Your task to perform on an android device: manage bookmarks in the chrome app Image 0: 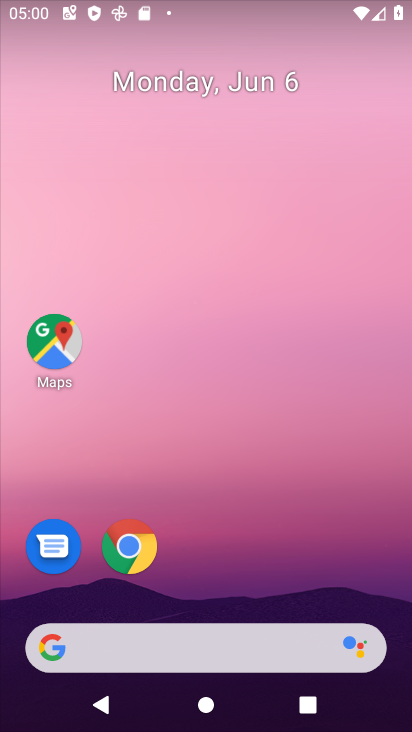
Step 0: click (147, 554)
Your task to perform on an android device: manage bookmarks in the chrome app Image 1: 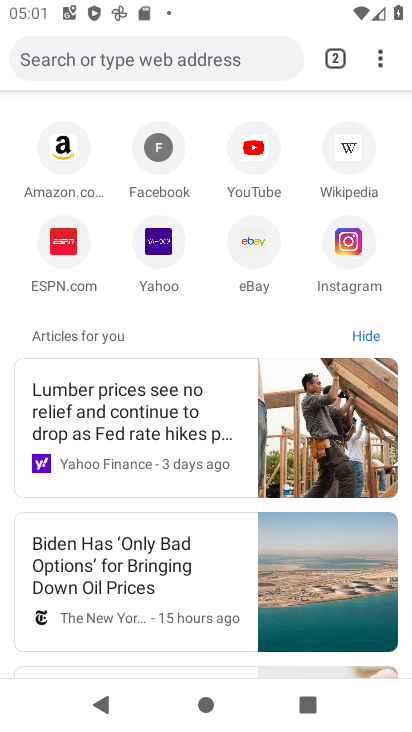
Step 1: task complete